Your task to perform on an android device: check data usage Image 0: 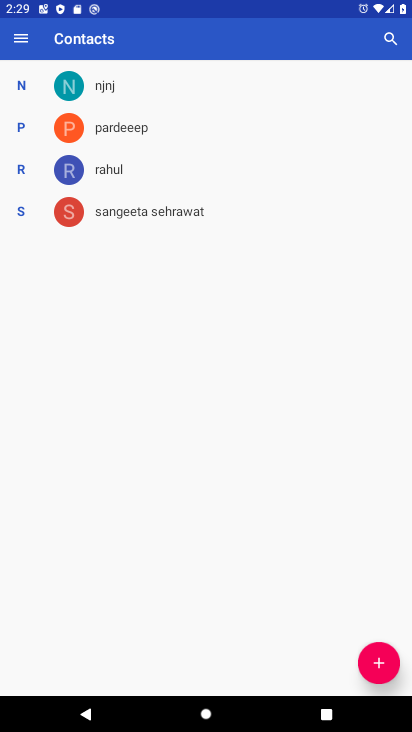
Step 0: drag from (277, 5) to (226, 595)
Your task to perform on an android device: check data usage Image 1: 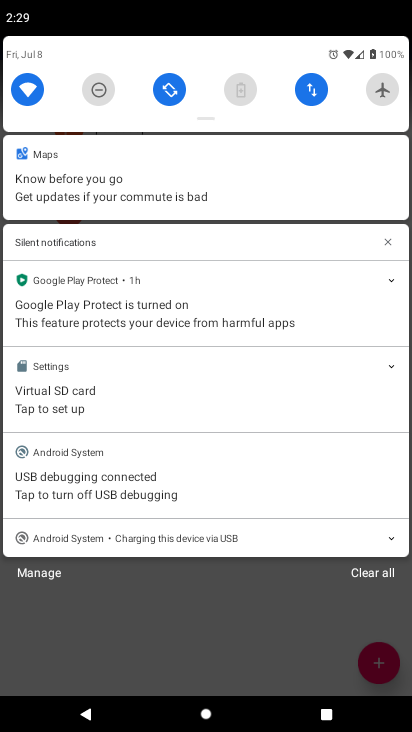
Step 1: click (320, 95)
Your task to perform on an android device: check data usage Image 2: 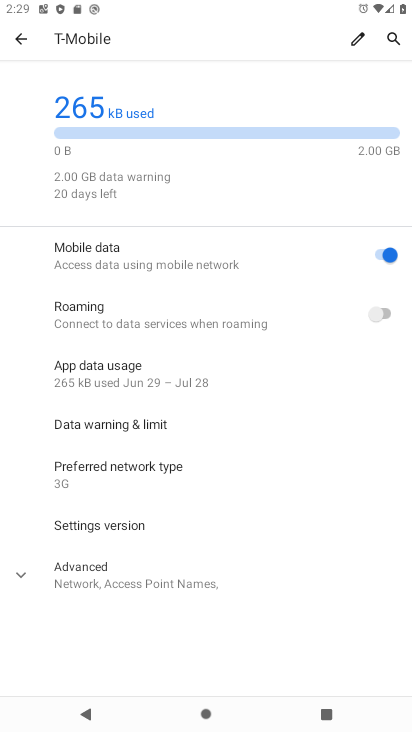
Step 2: task complete